Your task to perform on an android device: Go to eBay Image 0: 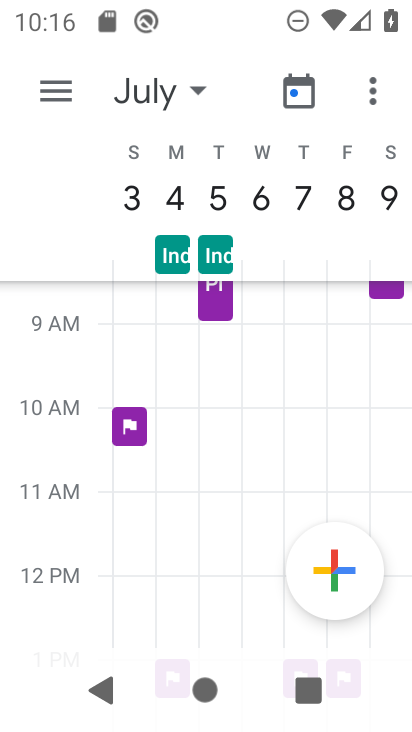
Step 0: press home button
Your task to perform on an android device: Go to eBay Image 1: 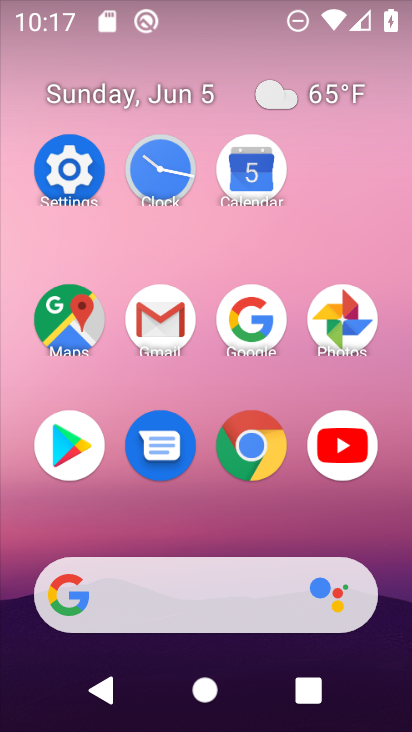
Step 1: click (259, 317)
Your task to perform on an android device: Go to eBay Image 2: 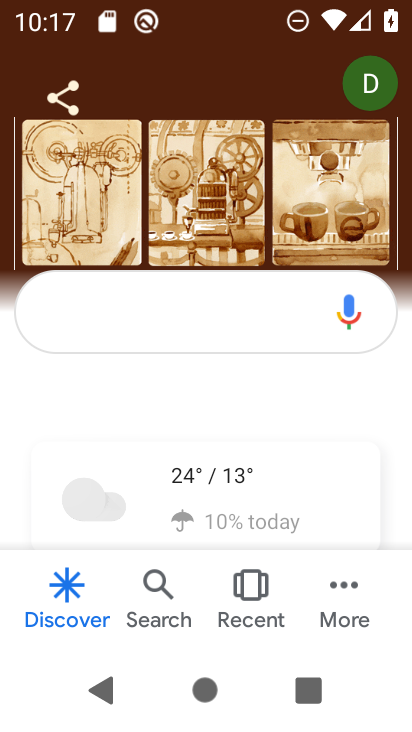
Step 2: click (189, 316)
Your task to perform on an android device: Go to eBay Image 3: 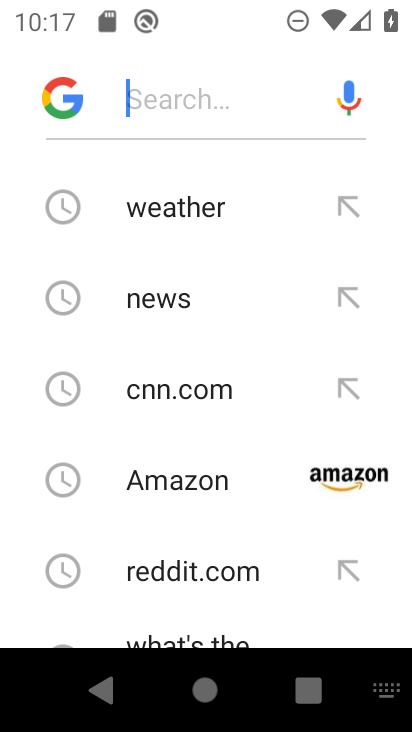
Step 3: drag from (204, 550) to (152, 276)
Your task to perform on an android device: Go to eBay Image 4: 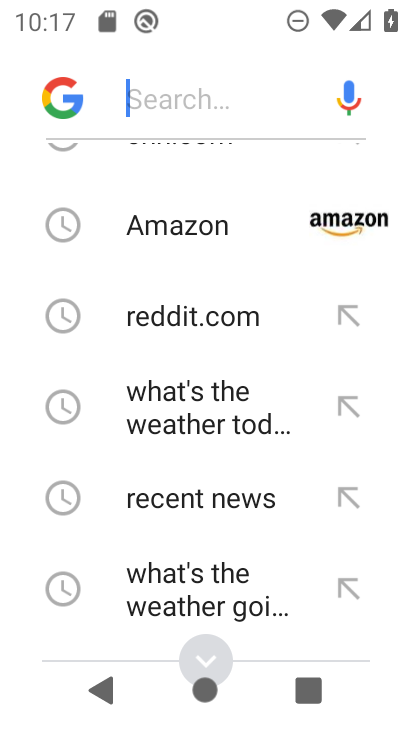
Step 4: drag from (204, 452) to (222, 164)
Your task to perform on an android device: Go to eBay Image 5: 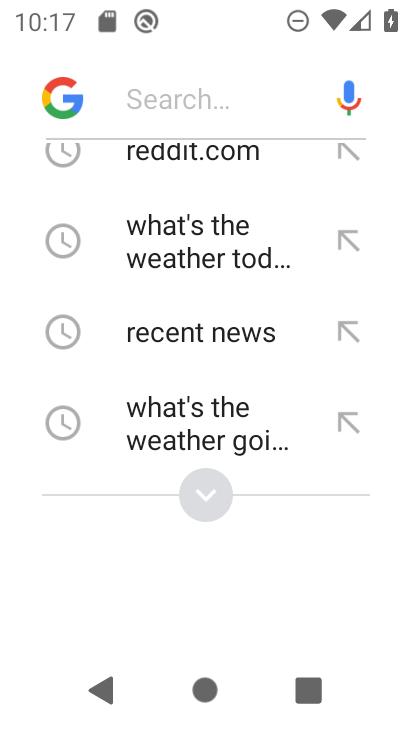
Step 5: drag from (224, 182) to (250, 665)
Your task to perform on an android device: Go to eBay Image 6: 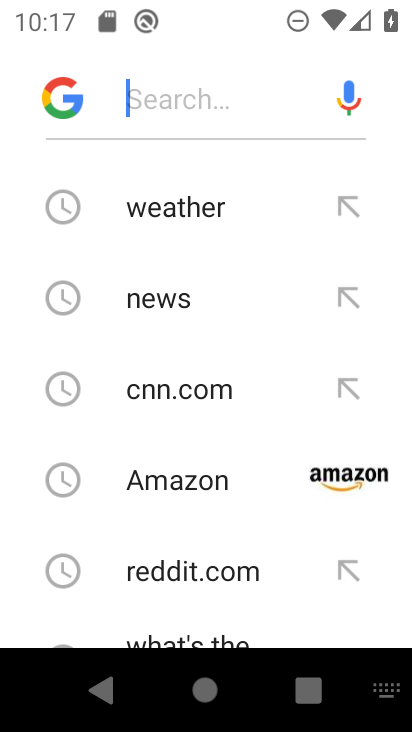
Step 6: drag from (190, 537) to (148, 167)
Your task to perform on an android device: Go to eBay Image 7: 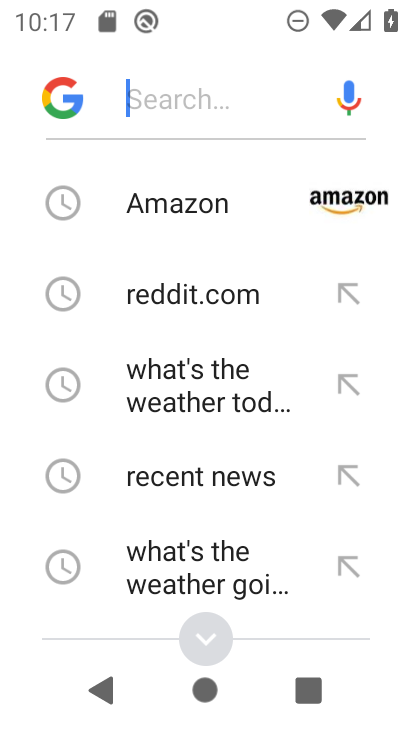
Step 7: click (213, 656)
Your task to perform on an android device: Go to eBay Image 8: 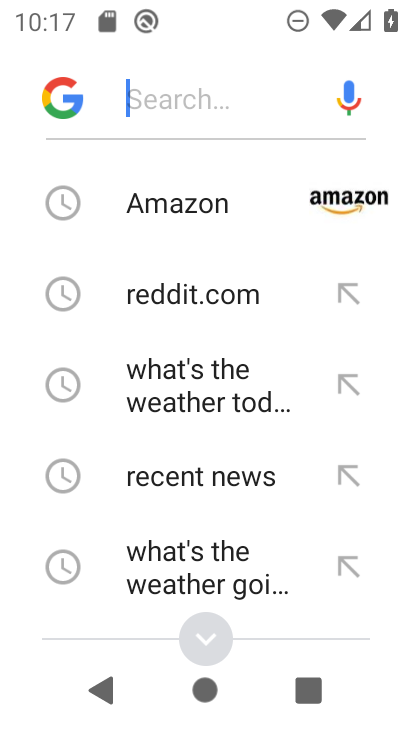
Step 8: click (212, 642)
Your task to perform on an android device: Go to eBay Image 9: 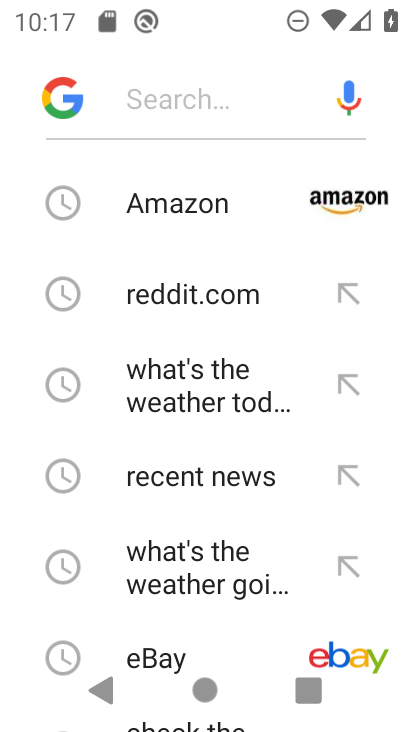
Step 9: click (225, 640)
Your task to perform on an android device: Go to eBay Image 10: 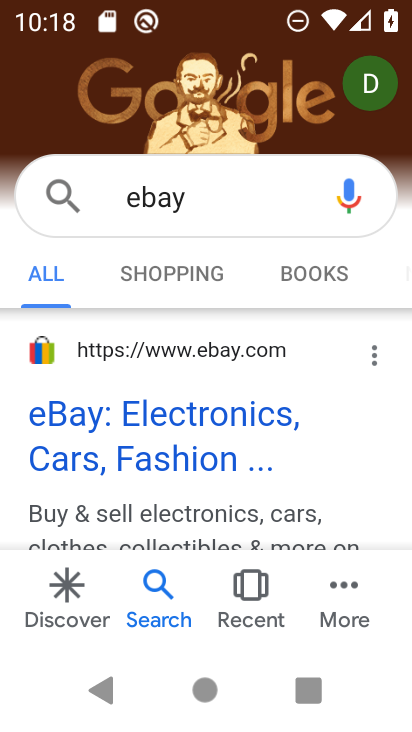
Step 10: task complete